Your task to perform on an android device: When is my next appointment? Image 0: 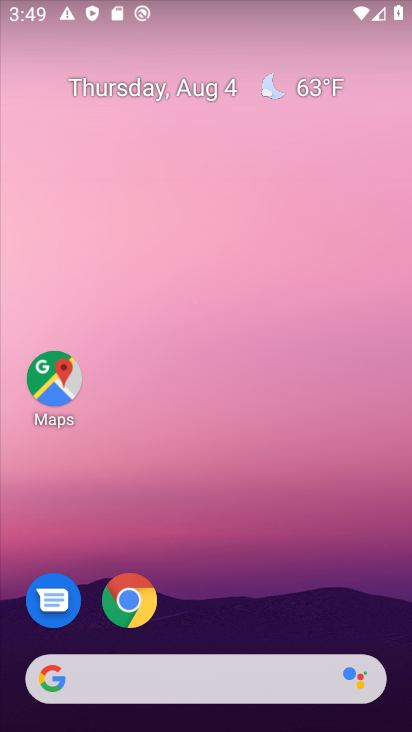
Step 0: drag from (301, 562) to (236, 21)
Your task to perform on an android device: When is my next appointment? Image 1: 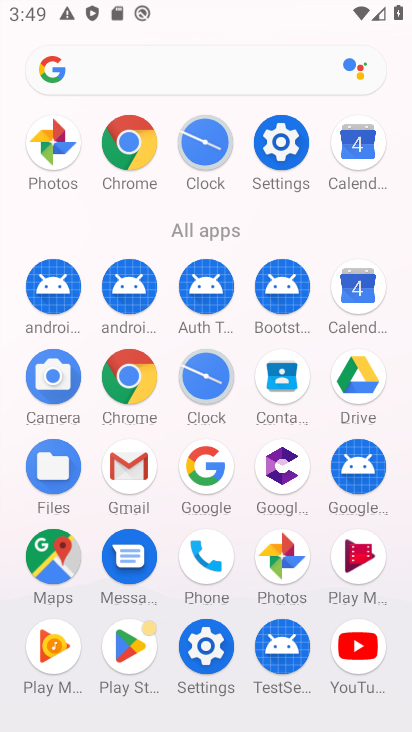
Step 1: click (350, 282)
Your task to perform on an android device: When is my next appointment? Image 2: 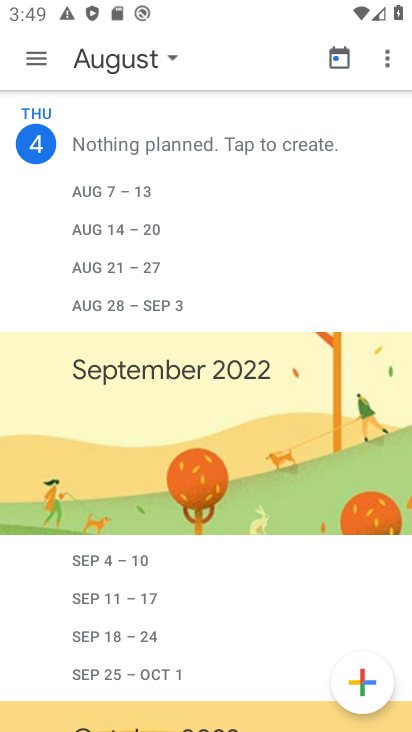
Step 2: click (34, 59)
Your task to perform on an android device: When is my next appointment? Image 3: 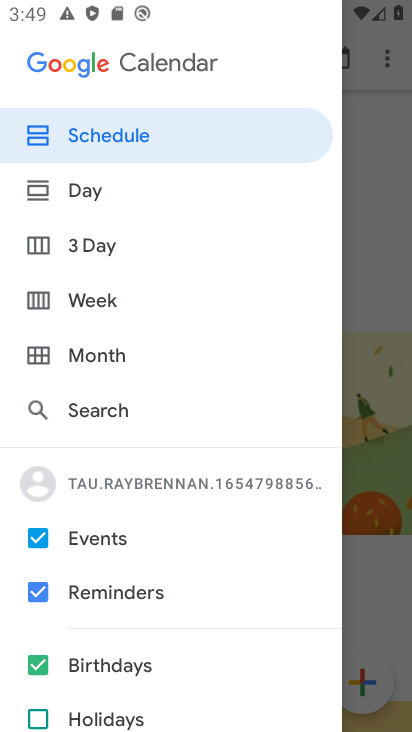
Step 3: click (95, 329)
Your task to perform on an android device: When is my next appointment? Image 4: 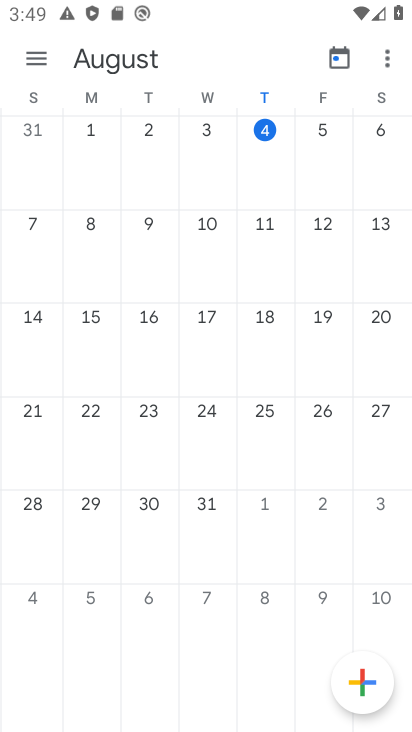
Step 4: click (44, 48)
Your task to perform on an android device: When is my next appointment? Image 5: 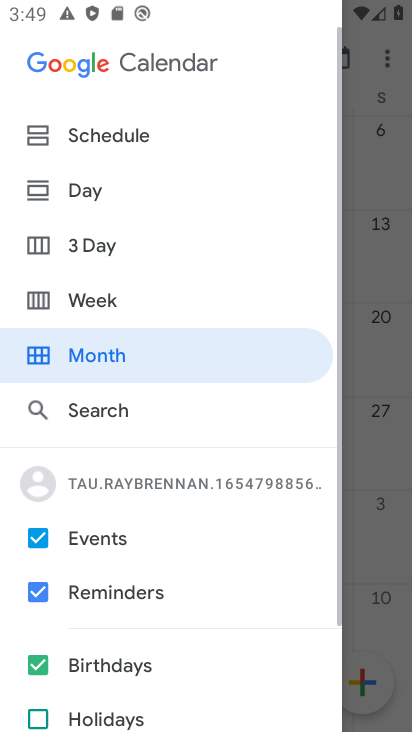
Step 5: click (117, 313)
Your task to perform on an android device: When is my next appointment? Image 6: 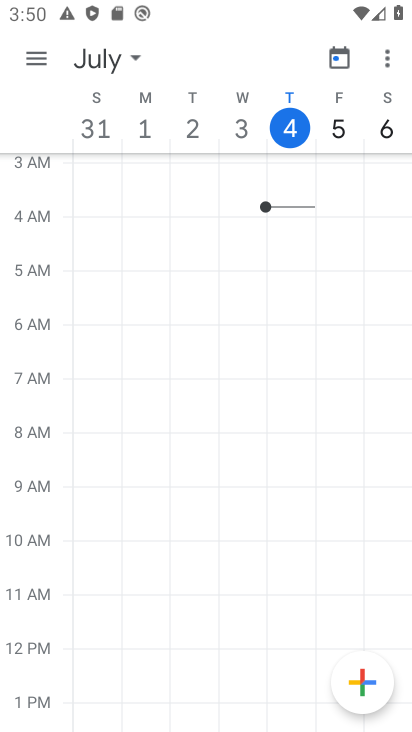
Step 6: task complete